Your task to perform on an android device: Go to privacy settings Image 0: 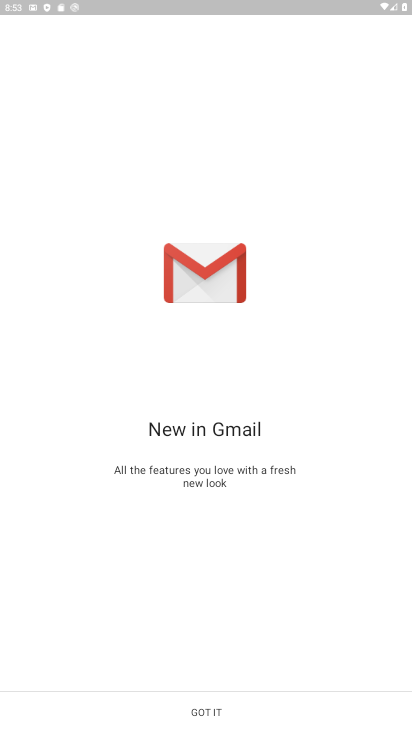
Step 0: press home button
Your task to perform on an android device: Go to privacy settings Image 1: 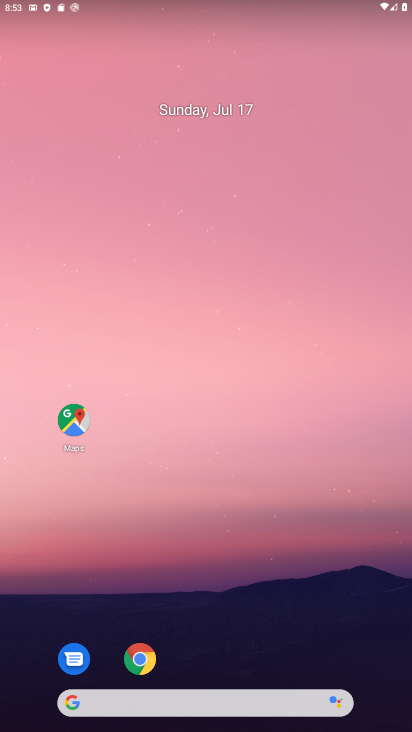
Step 1: drag from (215, 643) to (291, 167)
Your task to perform on an android device: Go to privacy settings Image 2: 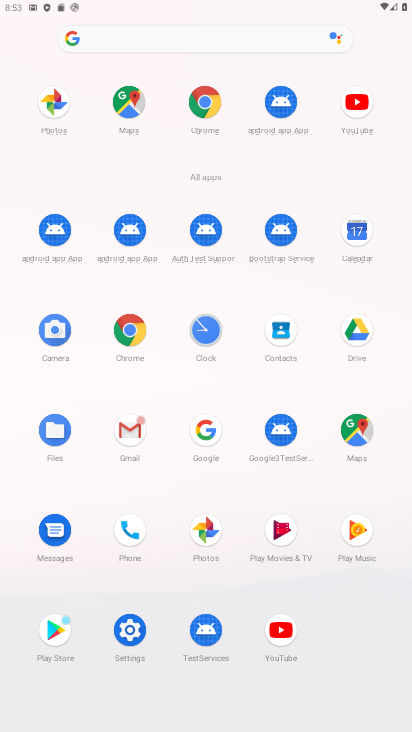
Step 2: click (114, 622)
Your task to perform on an android device: Go to privacy settings Image 3: 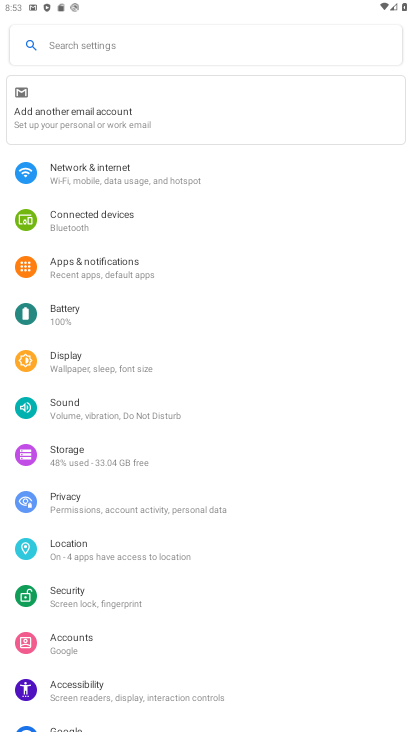
Step 3: click (71, 500)
Your task to perform on an android device: Go to privacy settings Image 4: 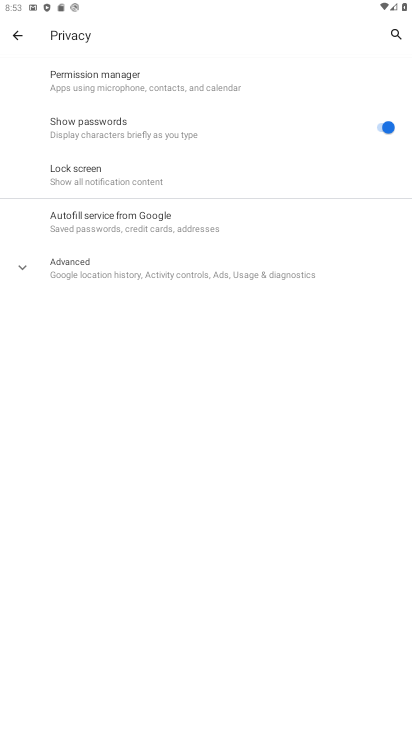
Step 4: task complete